Your task to perform on an android device: Open wifi settings Image 0: 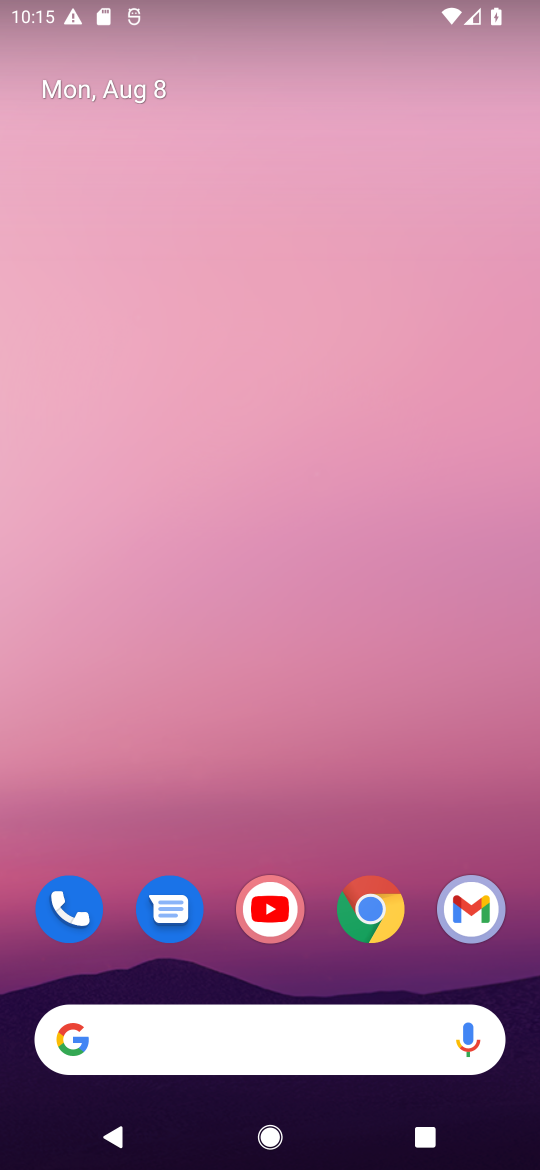
Step 0: drag from (292, 810) to (300, 0)
Your task to perform on an android device: Open wifi settings Image 1: 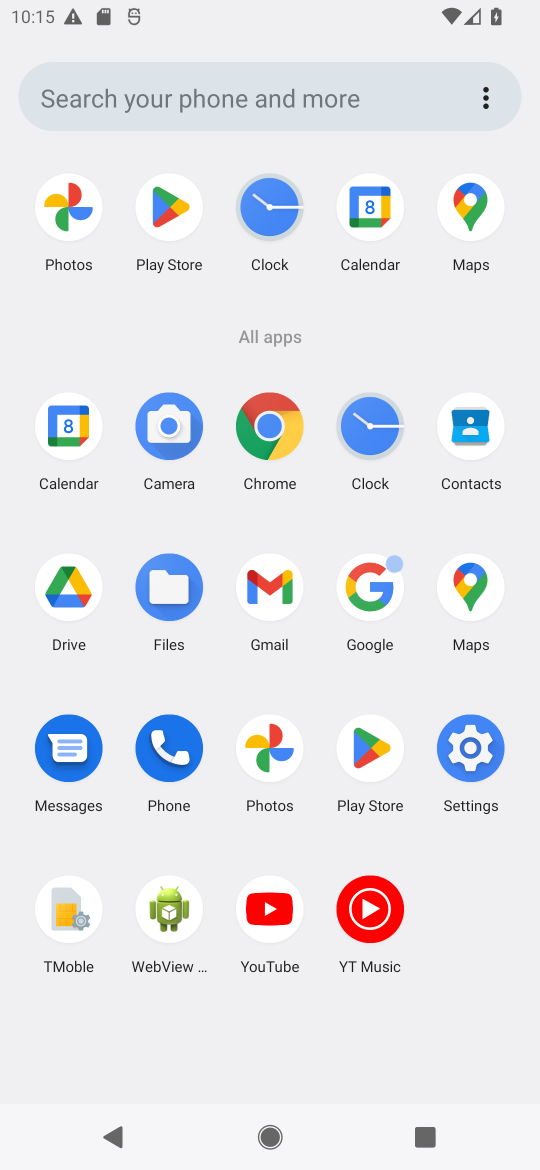
Step 1: click (465, 743)
Your task to perform on an android device: Open wifi settings Image 2: 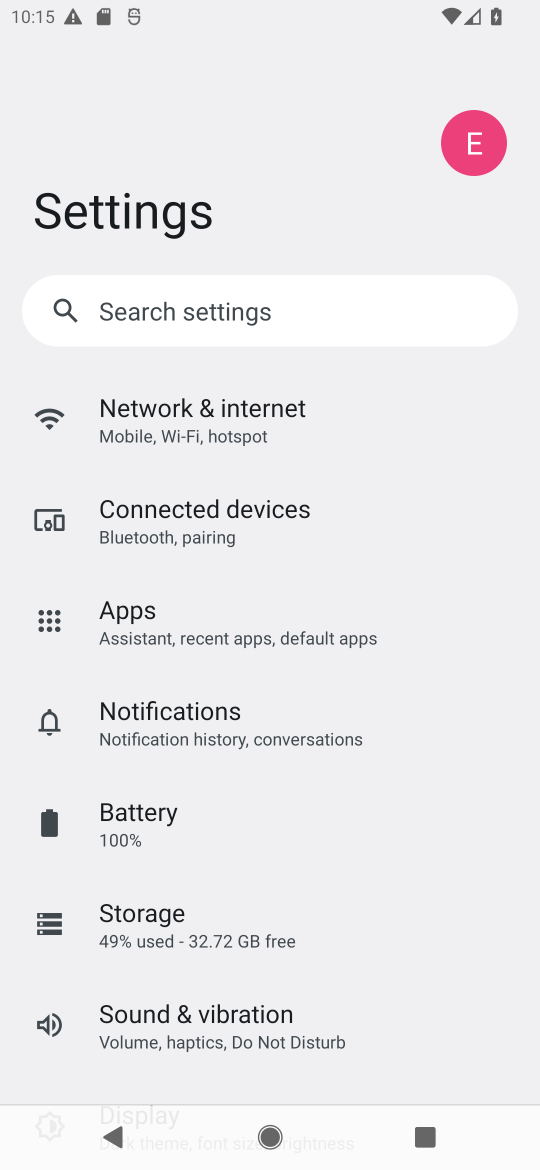
Step 2: click (264, 416)
Your task to perform on an android device: Open wifi settings Image 3: 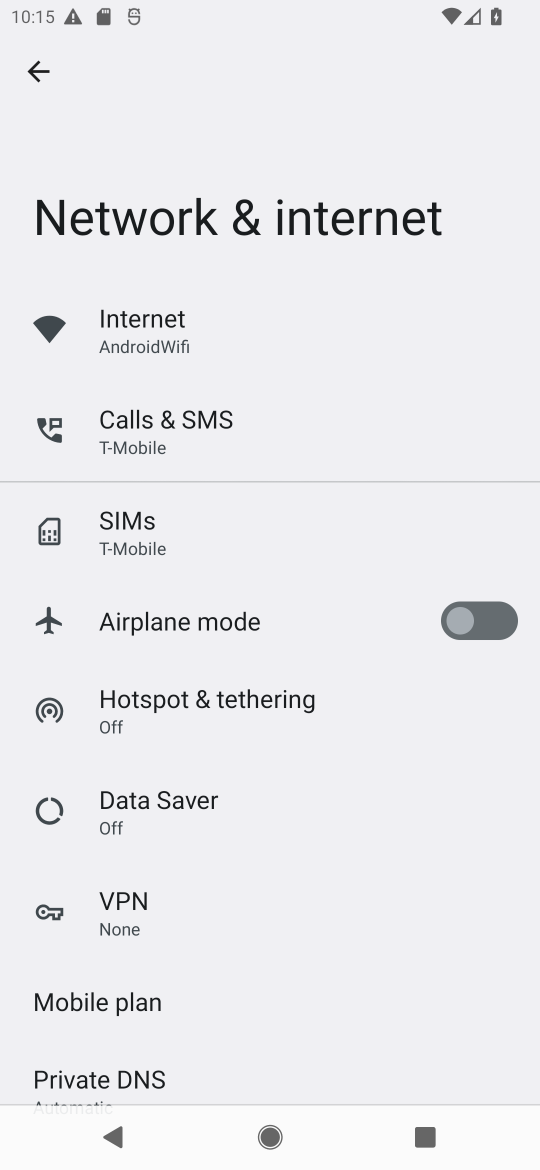
Step 3: click (168, 336)
Your task to perform on an android device: Open wifi settings Image 4: 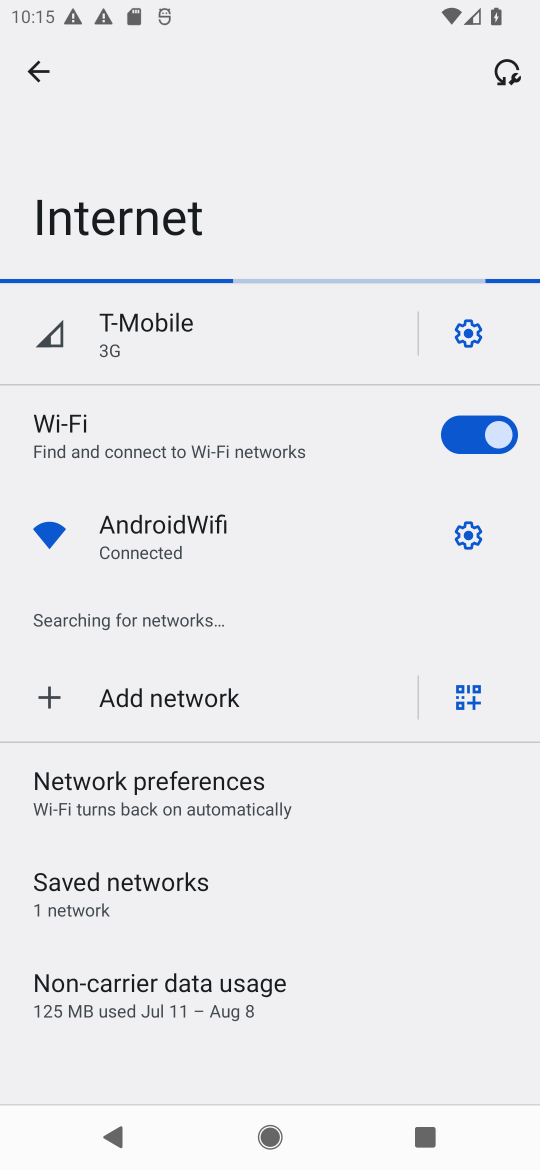
Step 4: task complete